Your task to perform on an android device: turn on notifications settings in the gmail app Image 0: 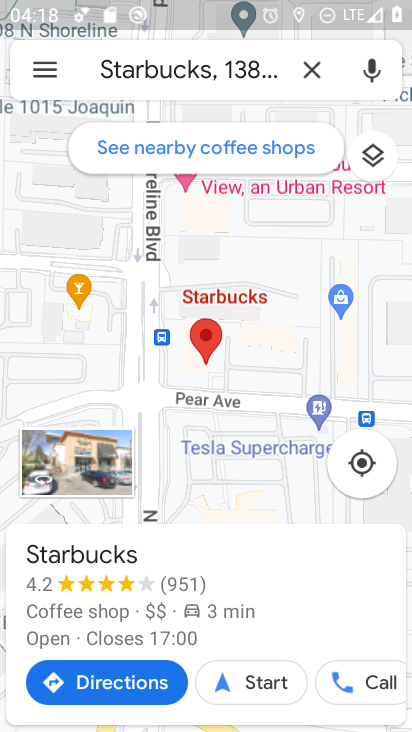
Step 0: press home button
Your task to perform on an android device: turn on notifications settings in the gmail app Image 1: 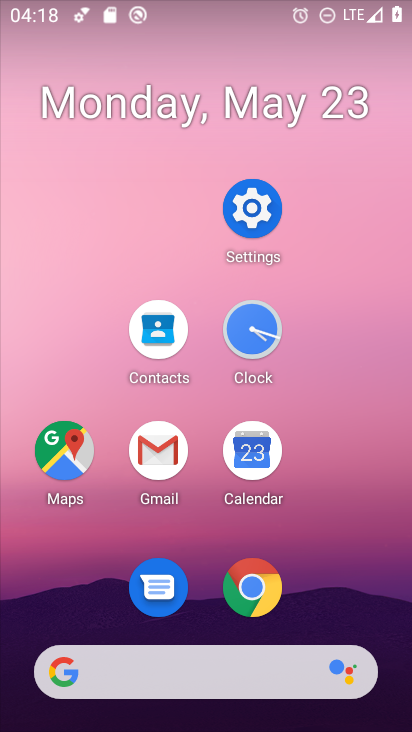
Step 1: click (167, 470)
Your task to perform on an android device: turn on notifications settings in the gmail app Image 2: 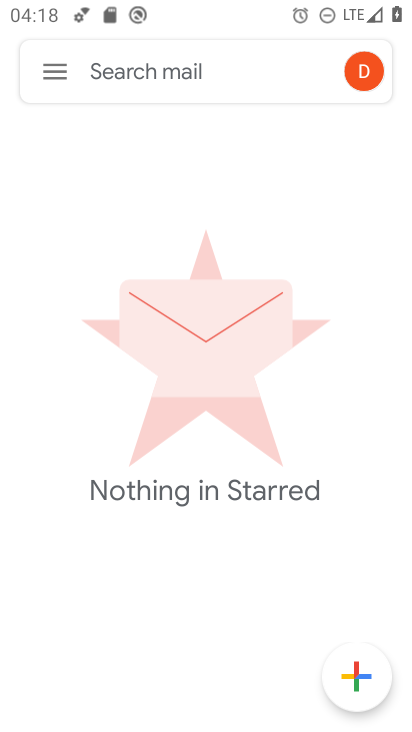
Step 2: click (60, 65)
Your task to perform on an android device: turn on notifications settings in the gmail app Image 3: 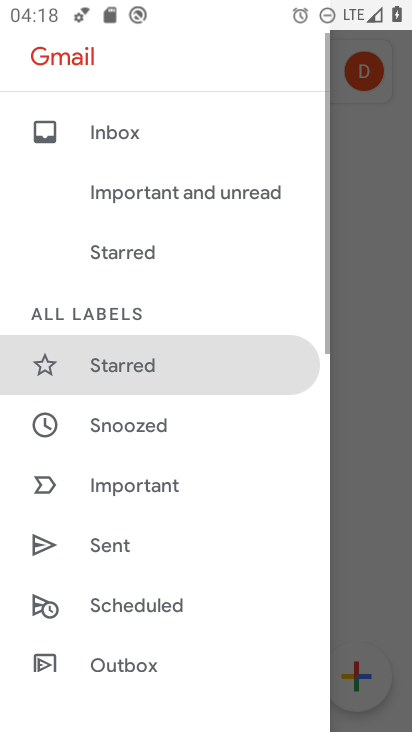
Step 3: drag from (109, 573) to (163, 262)
Your task to perform on an android device: turn on notifications settings in the gmail app Image 4: 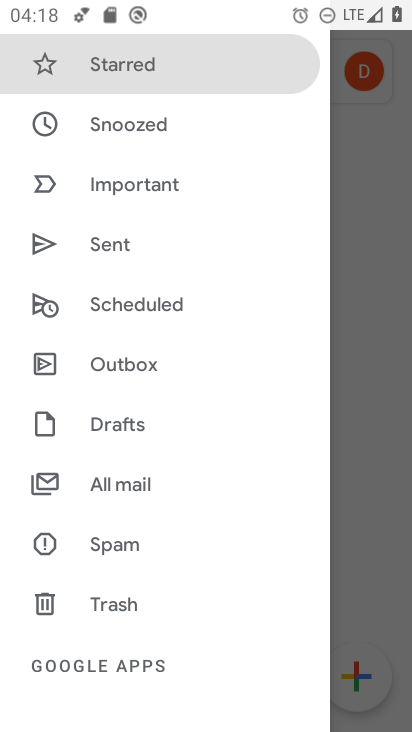
Step 4: drag from (214, 629) to (242, 257)
Your task to perform on an android device: turn on notifications settings in the gmail app Image 5: 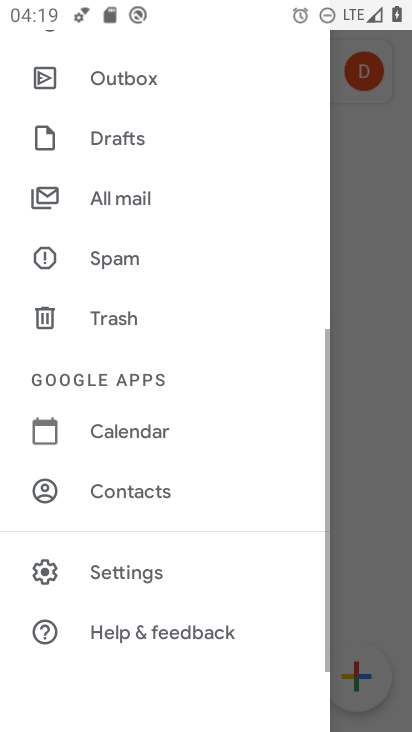
Step 5: click (195, 559)
Your task to perform on an android device: turn on notifications settings in the gmail app Image 6: 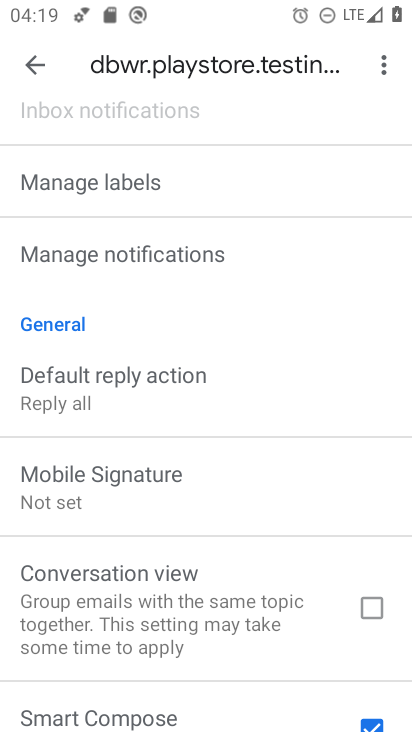
Step 6: click (185, 267)
Your task to perform on an android device: turn on notifications settings in the gmail app Image 7: 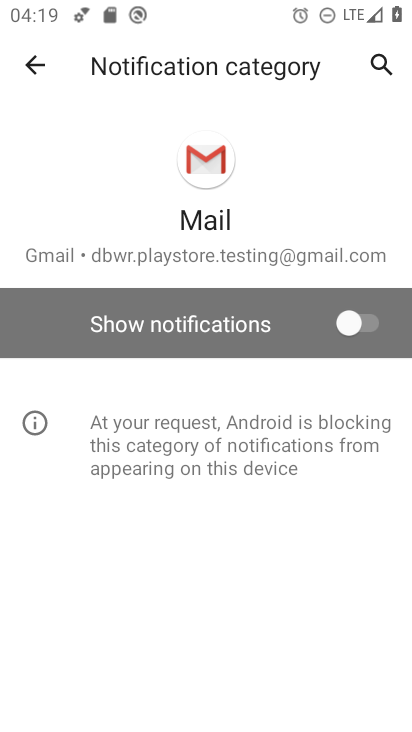
Step 7: click (338, 309)
Your task to perform on an android device: turn on notifications settings in the gmail app Image 8: 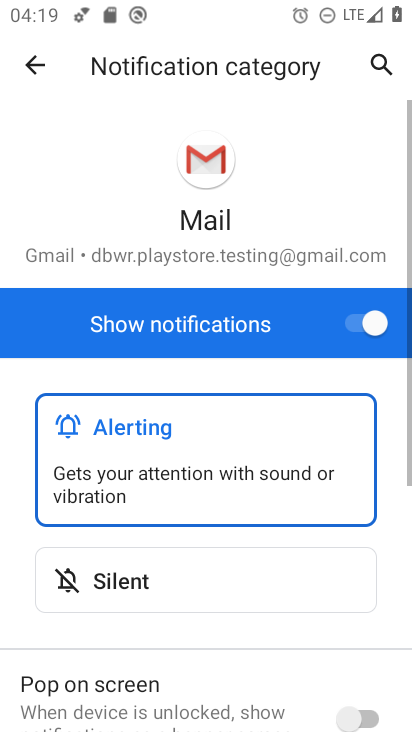
Step 8: task complete